Your task to perform on an android device: When is my next appointment? Image 0: 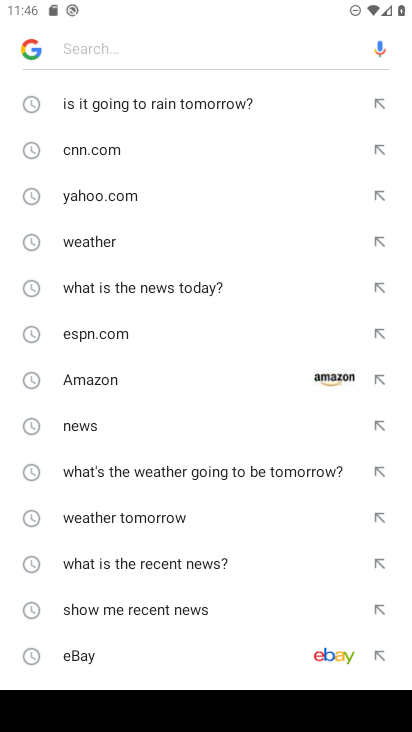
Step 0: press home button
Your task to perform on an android device: When is my next appointment? Image 1: 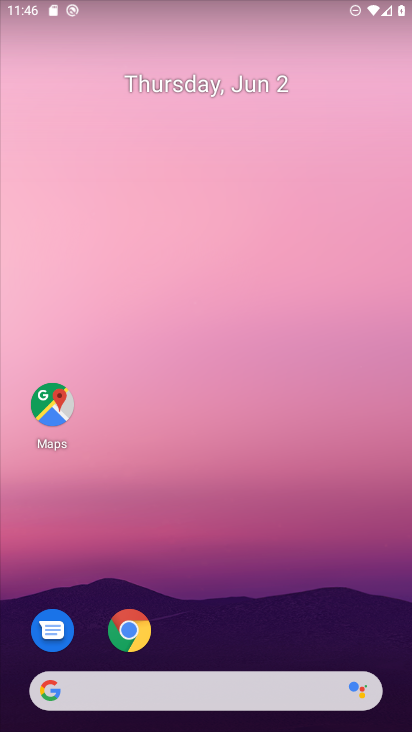
Step 1: drag from (251, 657) to (204, 90)
Your task to perform on an android device: When is my next appointment? Image 2: 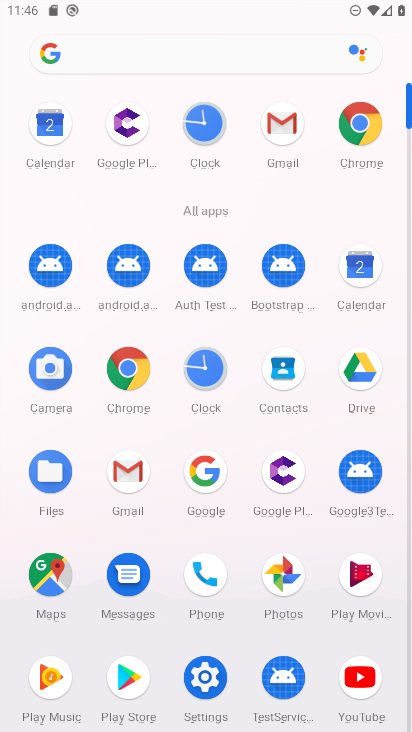
Step 2: click (365, 261)
Your task to perform on an android device: When is my next appointment? Image 3: 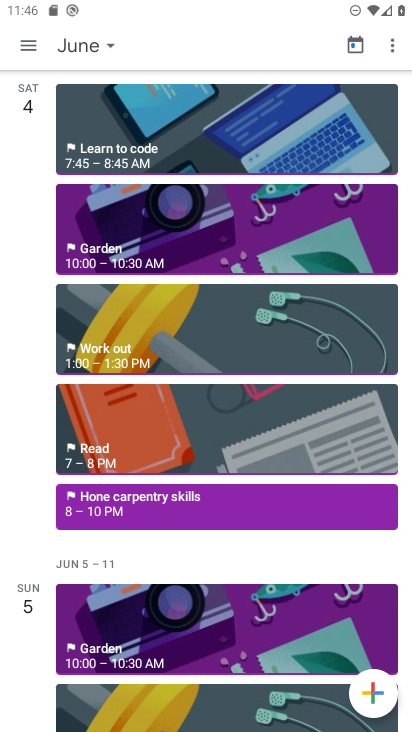
Step 3: click (33, 47)
Your task to perform on an android device: When is my next appointment? Image 4: 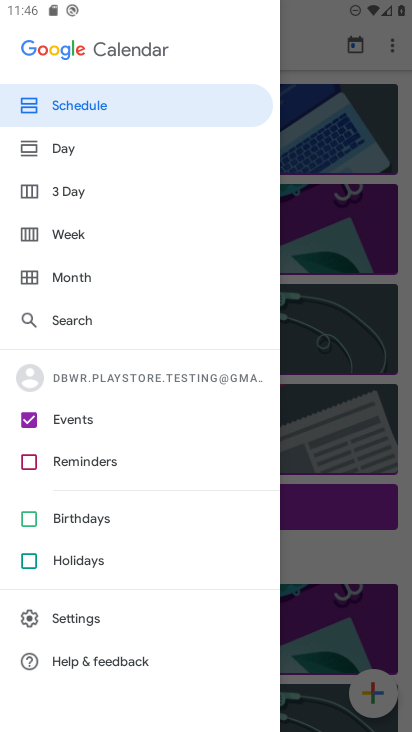
Step 4: click (64, 103)
Your task to perform on an android device: When is my next appointment? Image 5: 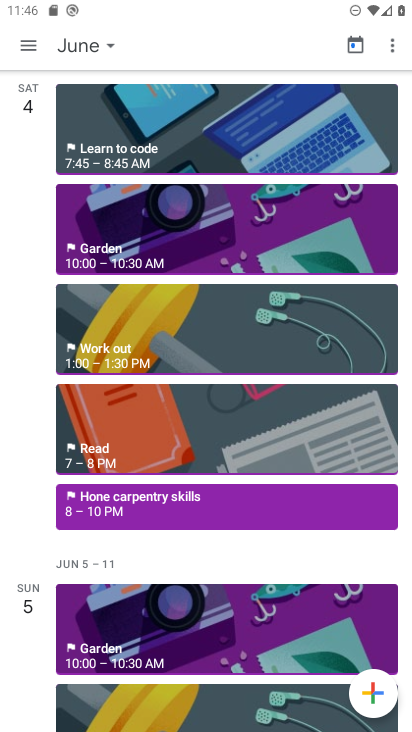
Step 5: click (90, 56)
Your task to perform on an android device: When is my next appointment? Image 6: 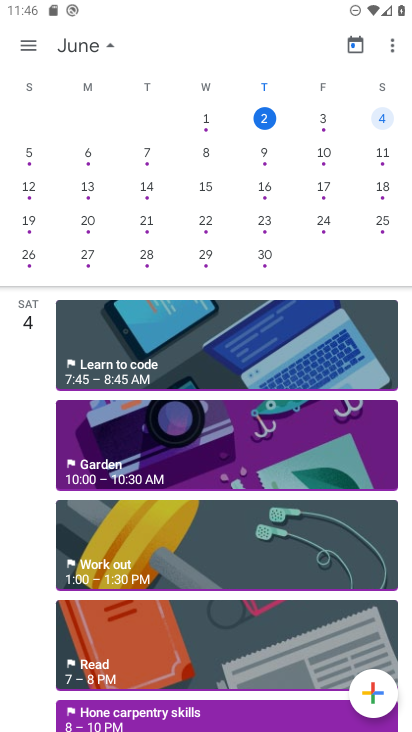
Step 6: click (323, 120)
Your task to perform on an android device: When is my next appointment? Image 7: 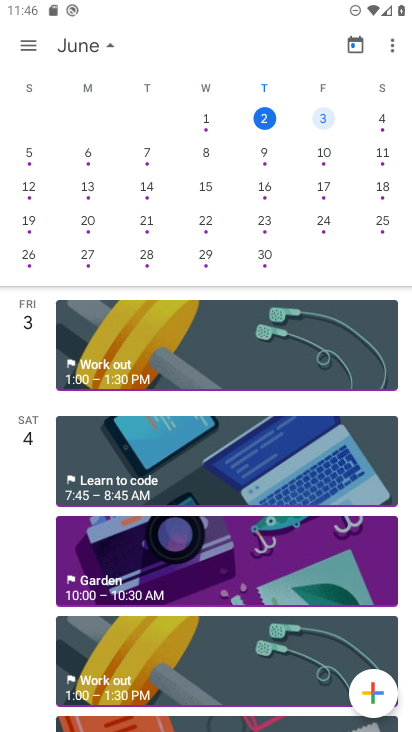
Step 7: click (112, 50)
Your task to perform on an android device: When is my next appointment? Image 8: 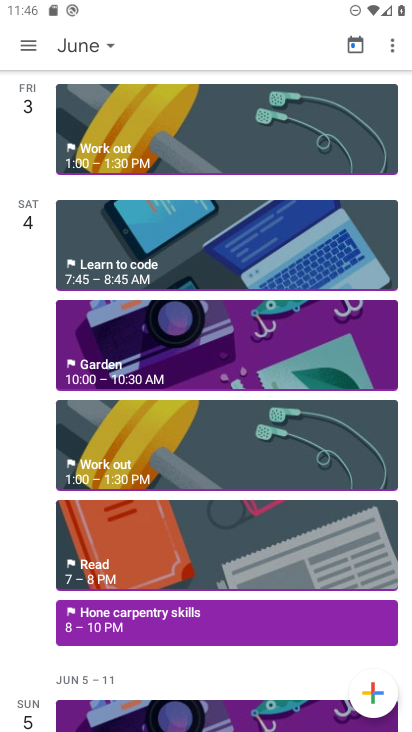
Step 8: task complete